Your task to perform on an android device: search for starred emails in the gmail app Image 0: 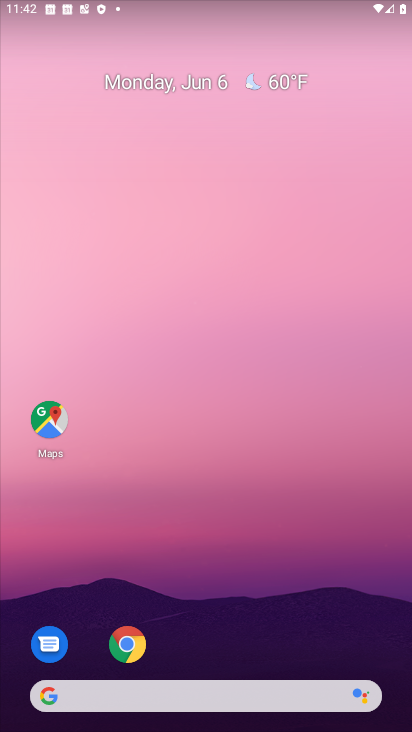
Step 0: drag from (233, 621) to (315, 172)
Your task to perform on an android device: search for starred emails in the gmail app Image 1: 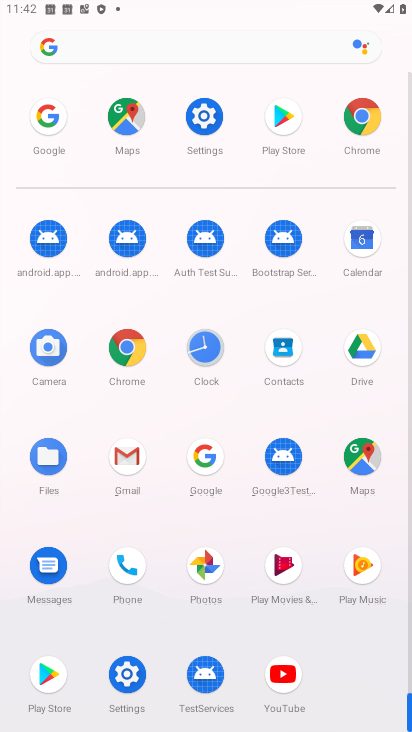
Step 1: click (134, 472)
Your task to perform on an android device: search for starred emails in the gmail app Image 2: 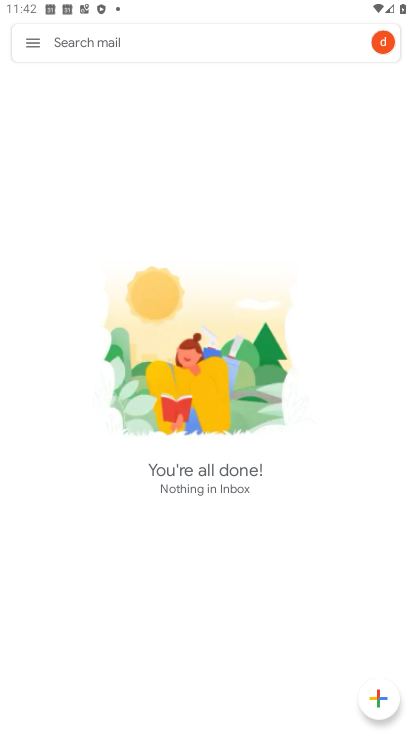
Step 2: click (36, 49)
Your task to perform on an android device: search for starred emails in the gmail app Image 3: 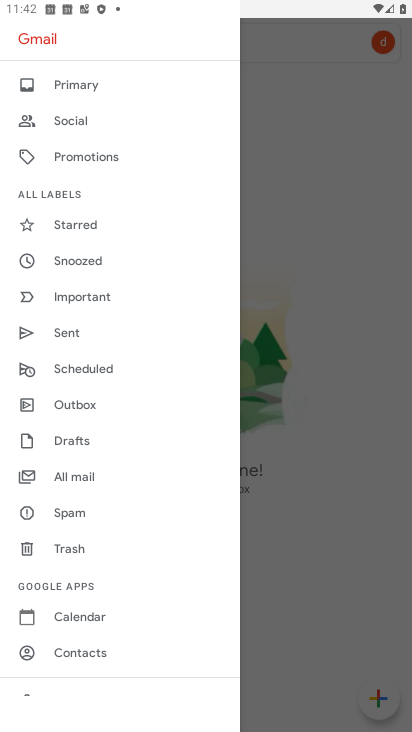
Step 3: click (80, 222)
Your task to perform on an android device: search for starred emails in the gmail app Image 4: 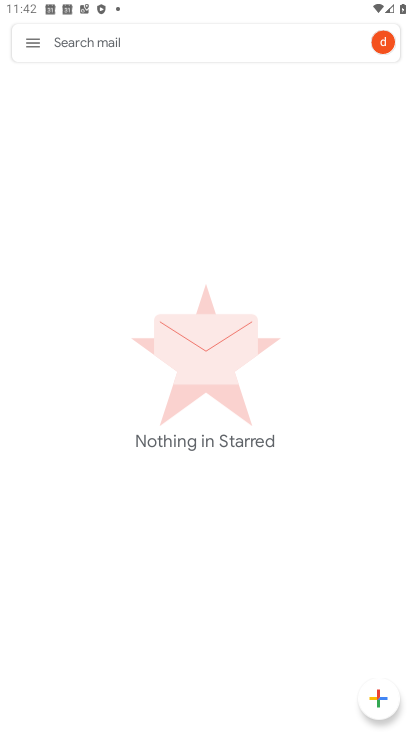
Step 4: task complete